Your task to perform on an android device: What's on my calendar tomorrow? Image 0: 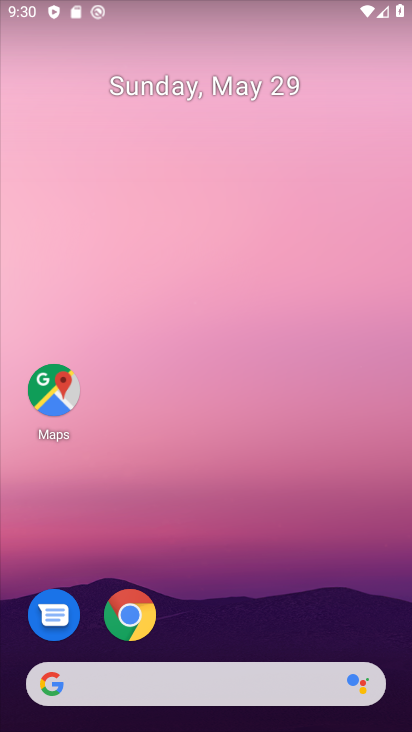
Step 0: drag from (249, 639) to (227, 23)
Your task to perform on an android device: What's on my calendar tomorrow? Image 1: 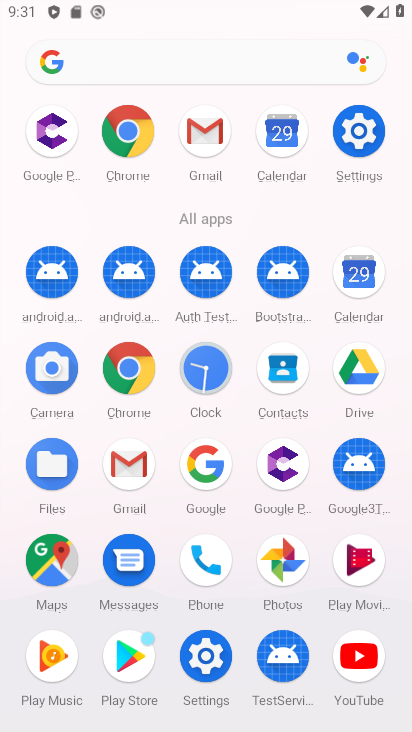
Step 1: click (350, 279)
Your task to perform on an android device: What's on my calendar tomorrow? Image 2: 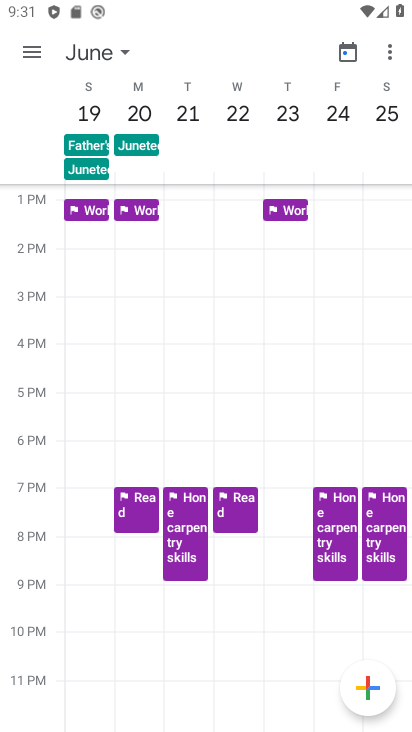
Step 2: click (343, 55)
Your task to perform on an android device: What's on my calendar tomorrow? Image 3: 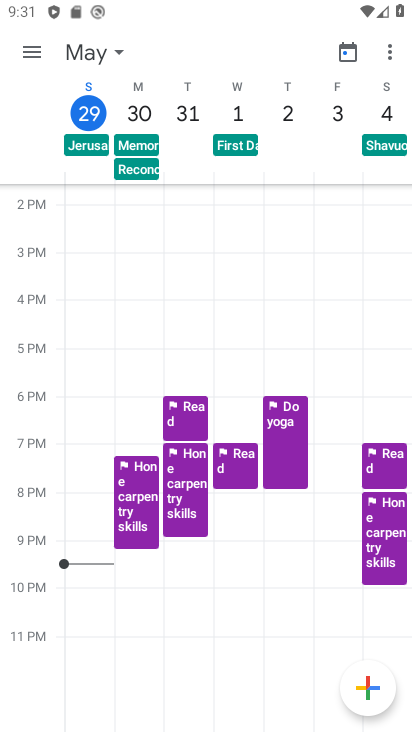
Step 3: click (128, 103)
Your task to perform on an android device: What's on my calendar tomorrow? Image 4: 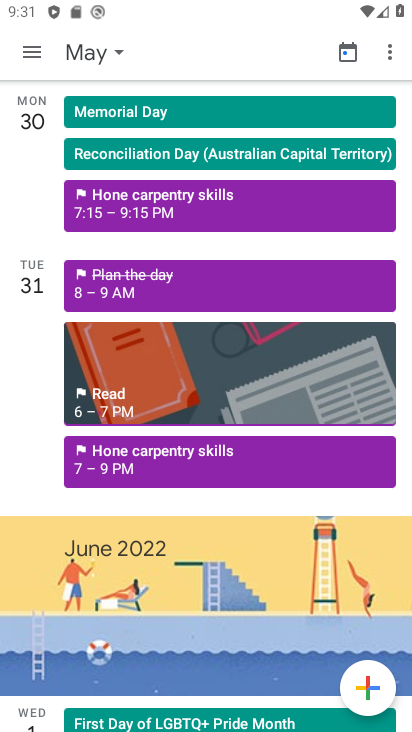
Step 4: task complete